Your task to perform on an android device: turn on priority inbox in the gmail app Image 0: 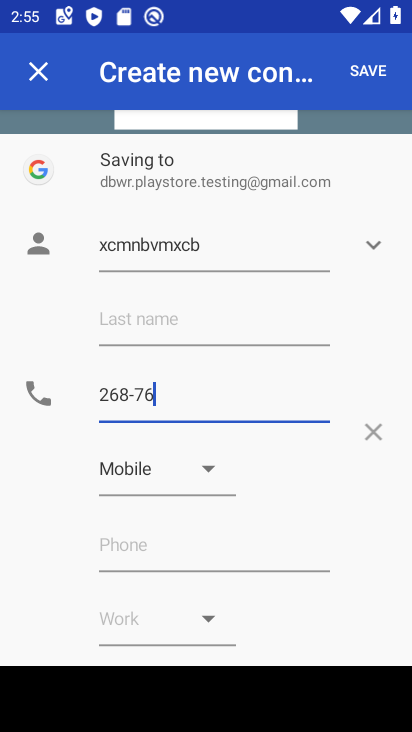
Step 0: press home button
Your task to perform on an android device: turn on priority inbox in the gmail app Image 1: 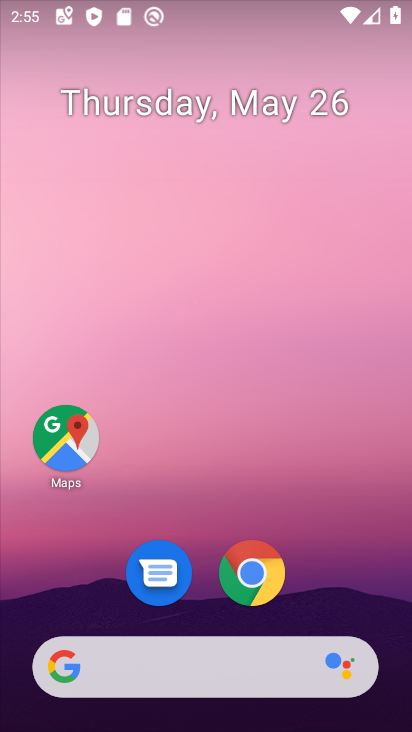
Step 1: drag from (225, 645) to (239, 221)
Your task to perform on an android device: turn on priority inbox in the gmail app Image 2: 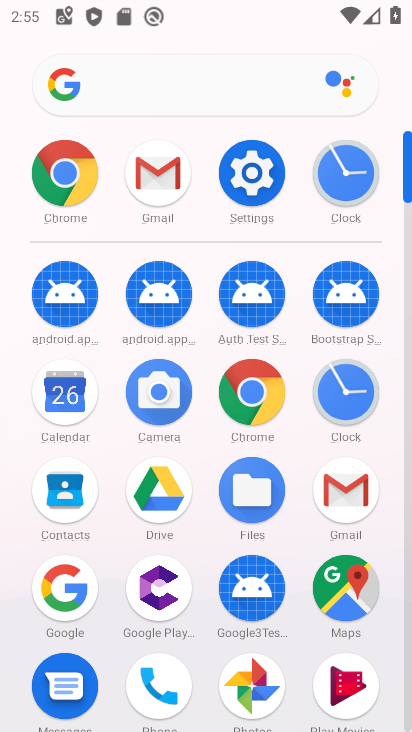
Step 2: click (167, 191)
Your task to perform on an android device: turn on priority inbox in the gmail app Image 3: 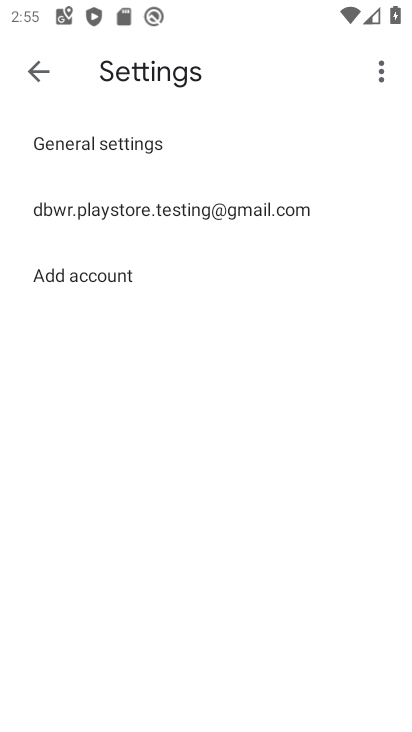
Step 3: click (106, 204)
Your task to perform on an android device: turn on priority inbox in the gmail app Image 4: 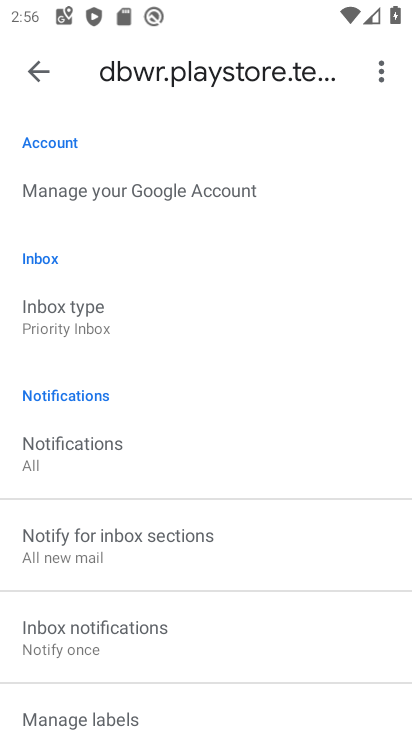
Step 4: click (89, 313)
Your task to perform on an android device: turn on priority inbox in the gmail app Image 5: 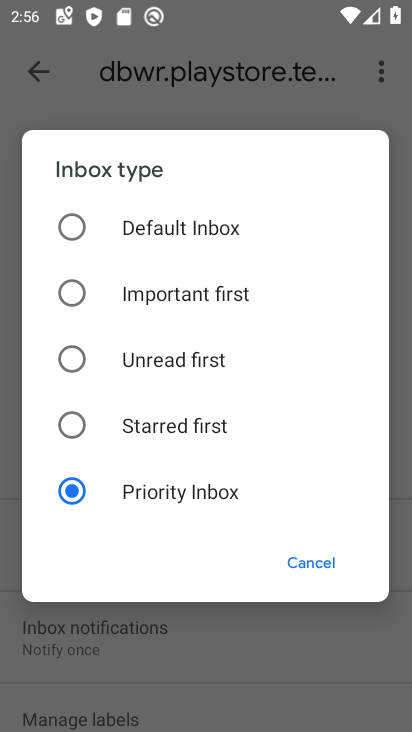
Step 5: click (145, 493)
Your task to perform on an android device: turn on priority inbox in the gmail app Image 6: 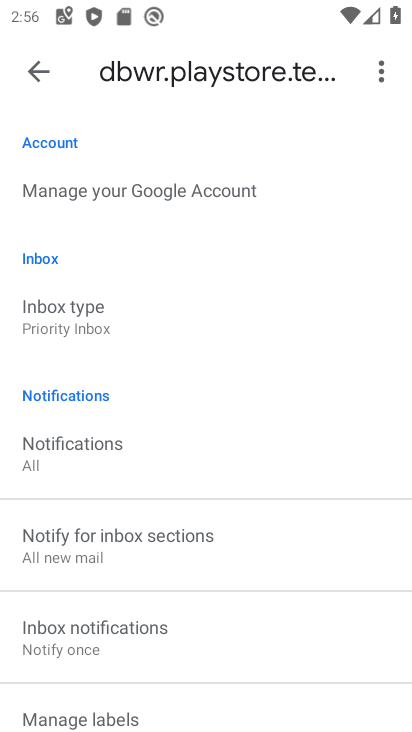
Step 6: task complete